Your task to perform on an android device: change the clock display to show seconds Image 0: 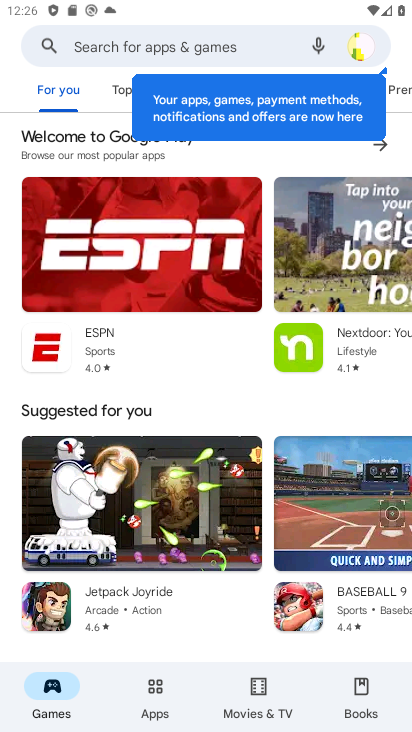
Step 0: press home button
Your task to perform on an android device: change the clock display to show seconds Image 1: 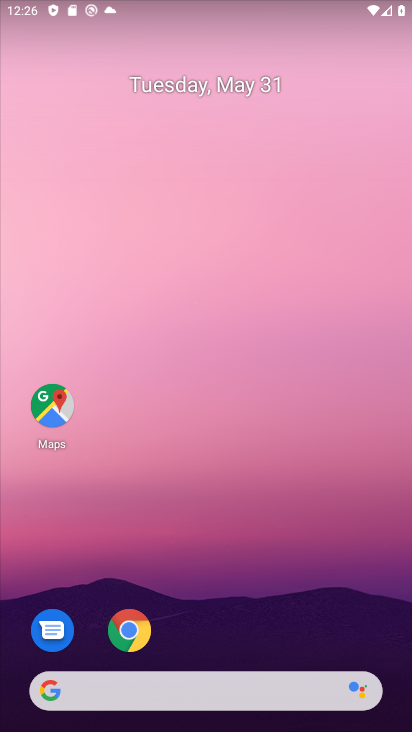
Step 1: drag from (278, 382) to (312, 176)
Your task to perform on an android device: change the clock display to show seconds Image 2: 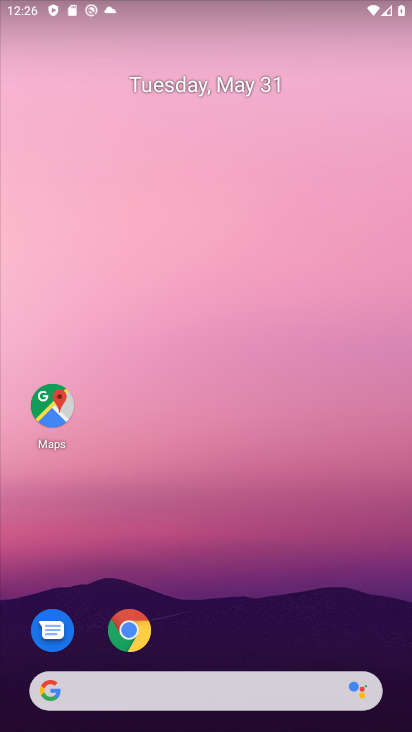
Step 2: drag from (192, 651) to (262, 134)
Your task to perform on an android device: change the clock display to show seconds Image 3: 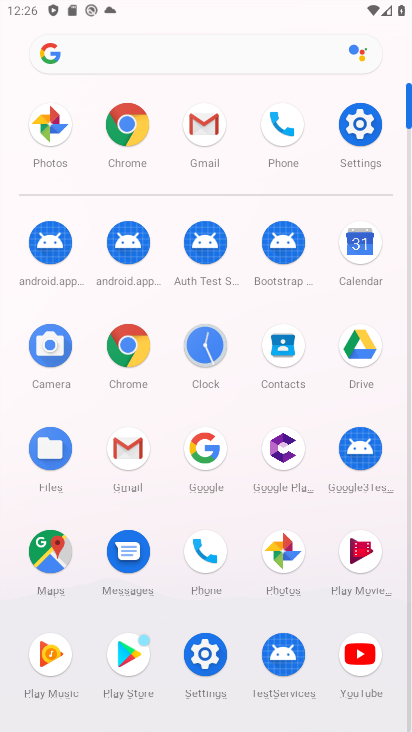
Step 3: click (205, 341)
Your task to perform on an android device: change the clock display to show seconds Image 4: 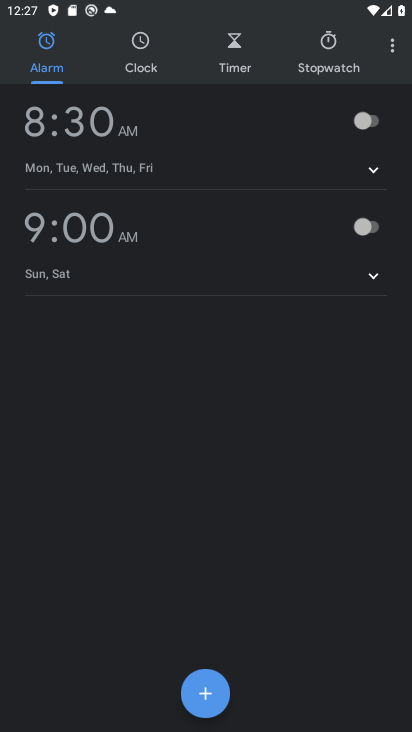
Step 4: click (392, 50)
Your task to perform on an android device: change the clock display to show seconds Image 5: 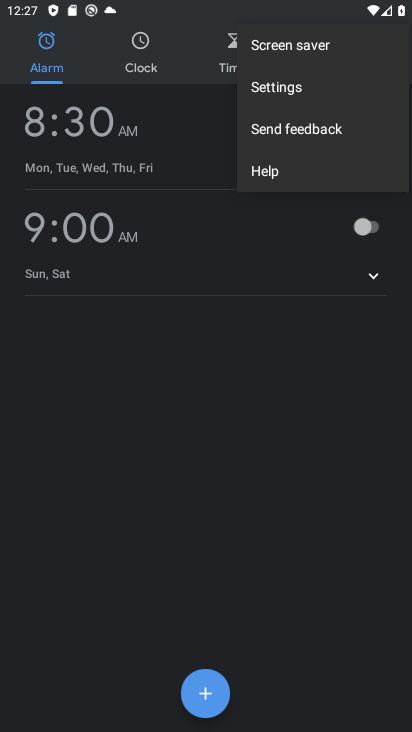
Step 5: click (276, 90)
Your task to perform on an android device: change the clock display to show seconds Image 6: 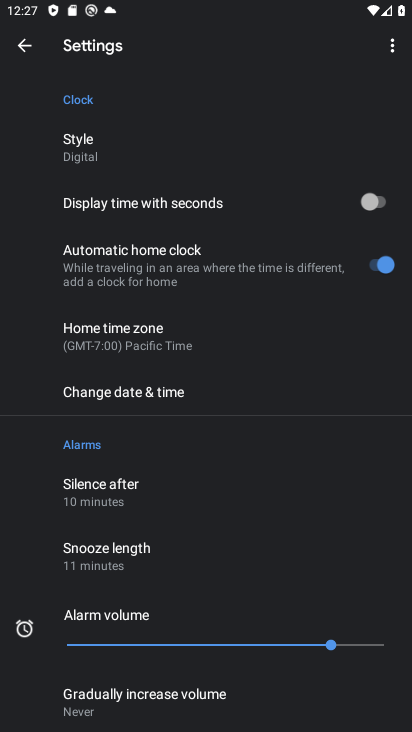
Step 6: click (379, 208)
Your task to perform on an android device: change the clock display to show seconds Image 7: 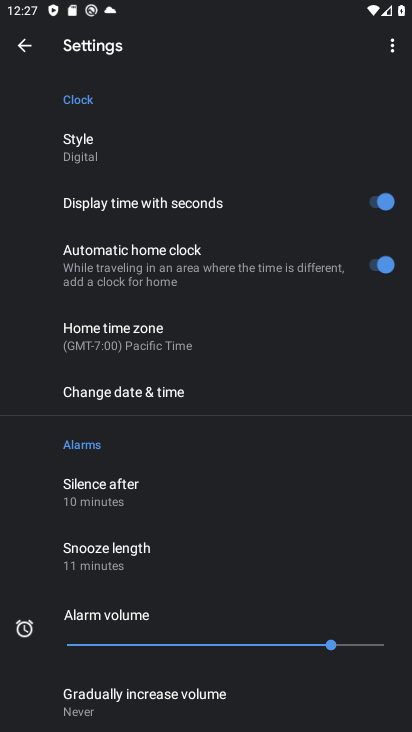
Step 7: task complete